Your task to perform on an android device: change your default location settings in chrome Image 0: 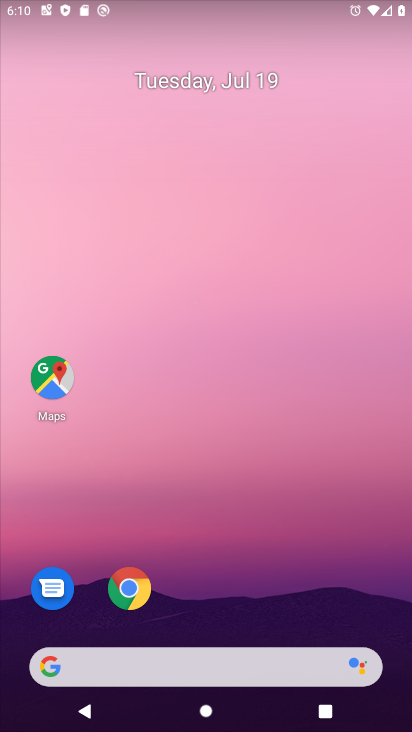
Step 0: click (131, 595)
Your task to perform on an android device: change your default location settings in chrome Image 1: 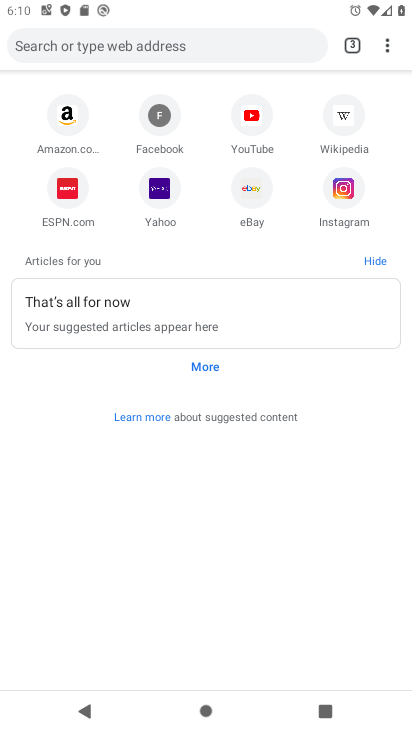
Step 1: click (387, 57)
Your task to perform on an android device: change your default location settings in chrome Image 2: 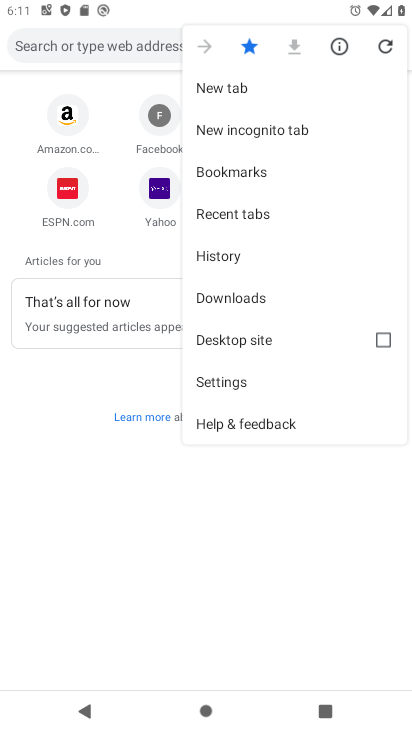
Step 2: click (230, 375)
Your task to perform on an android device: change your default location settings in chrome Image 3: 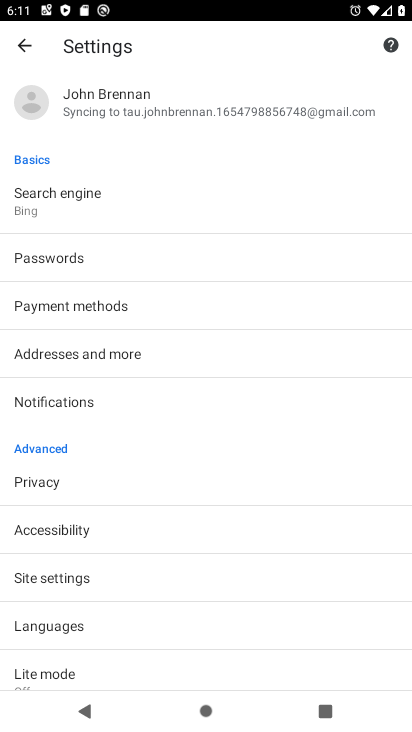
Step 3: drag from (73, 625) to (232, 242)
Your task to perform on an android device: change your default location settings in chrome Image 4: 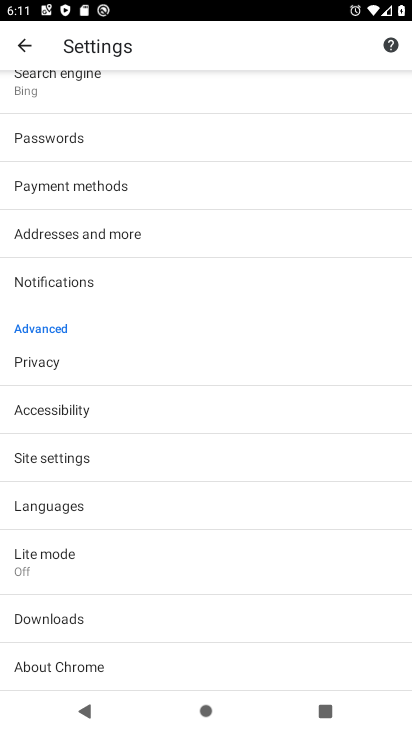
Step 4: click (116, 463)
Your task to perform on an android device: change your default location settings in chrome Image 5: 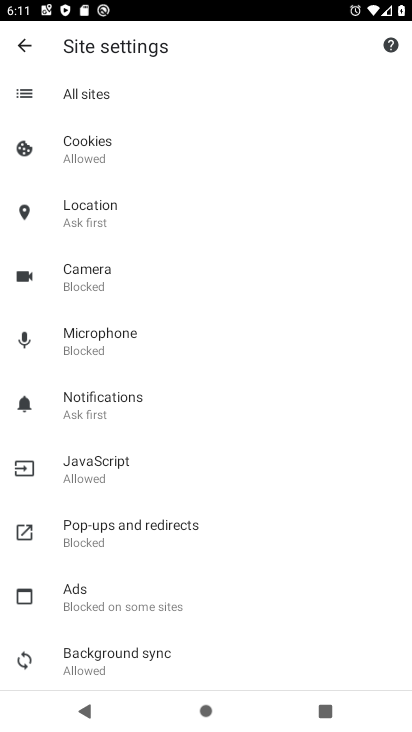
Step 5: click (69, 215)
Your task to perform on an android device: change your default location settings in chrome Image 6: 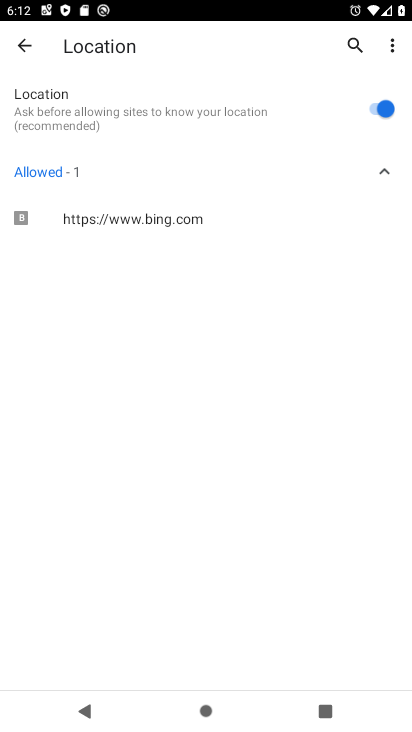
Step 6: click (378, 101)
Your task to perform on an android device: change your default location settings in chrome Image 7: 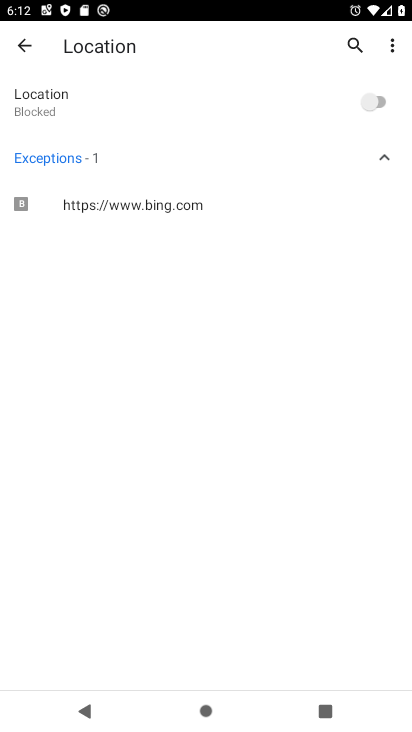
Step 7: task complete